Your task to perform on an android device: stop showing notifications on the lock screen Image 0: 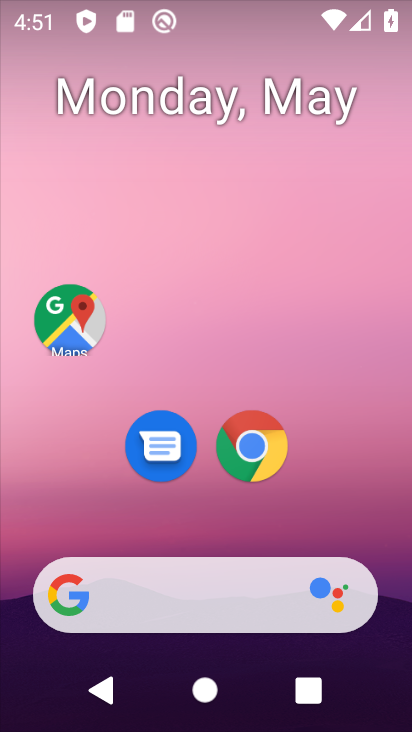
Step 0: drag from (343, 507) to (309, 152)
Your task to perform on an android device: stop showing notifications on the lock screen Image 1: 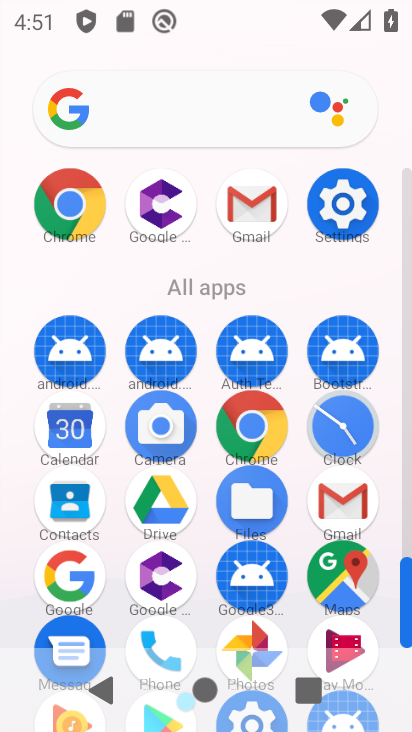
Step 1: click (343, 206)
Your task to perform on an android device: stop showing notifications on the lock screen Image 2: 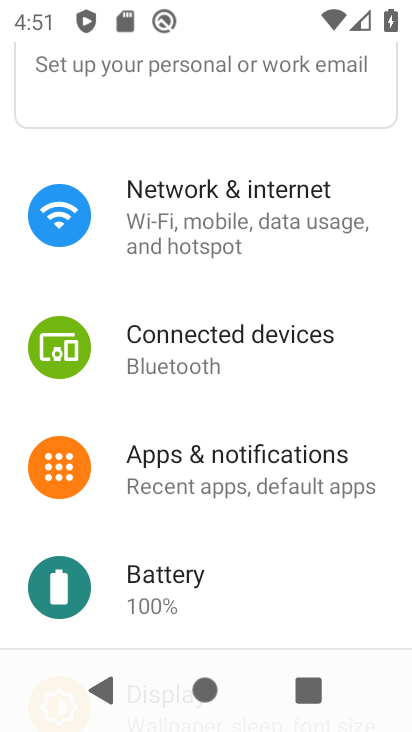
Step 2: click (224, 467)
Your task to perform on an android device: stop showing notifications on the lock screen Image 3: 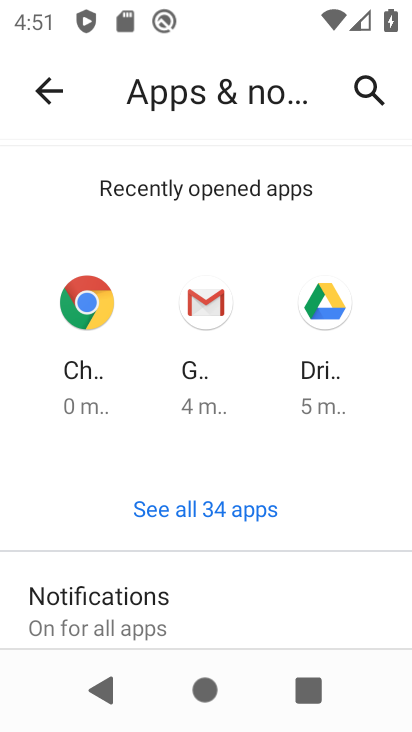
Step 3: click (104, 584)
Your task to perform on an android device: stop showing notifications on the lock screen Image 4: 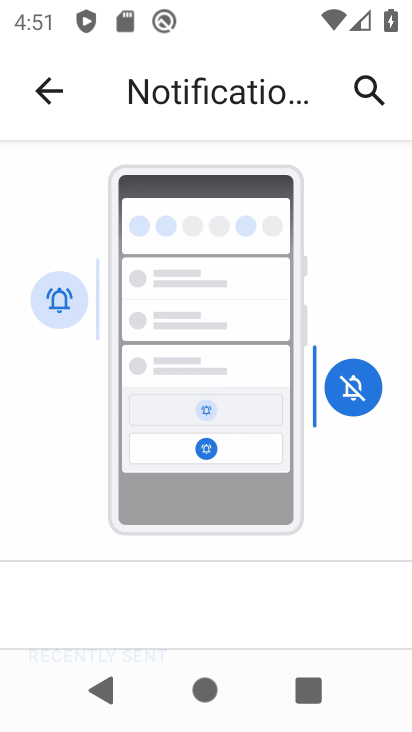
Step 4: drag from (331, 535) to (288, 151)
Your task to perform on an android device: stop showing notifications on the lock screen Image 5: 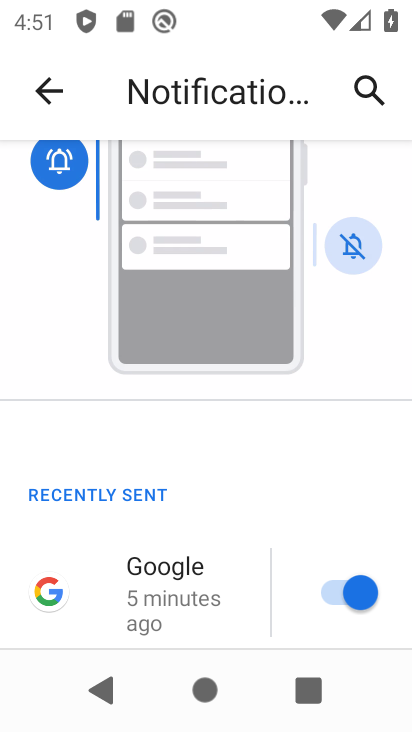
Step 5: drag from (259, 480) to (237, 138)
Your task to perform on an android device: stop showing notifications on the lock screen Image 6: 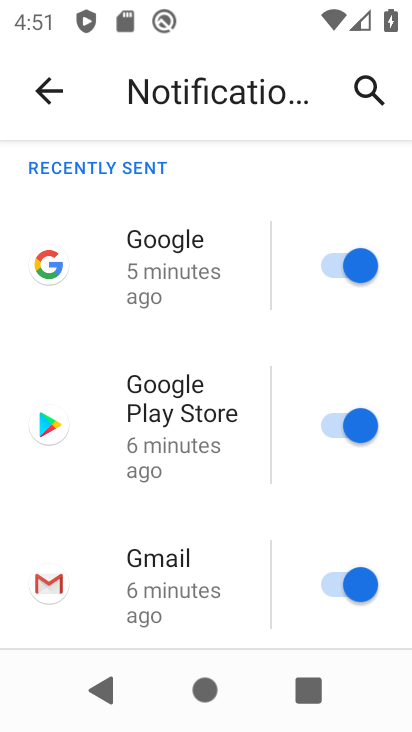
Step 6: drag from (227, 519) to (217, 130)
Your task to perform on an android device: stop showing notifications on the lock screen Image 7: 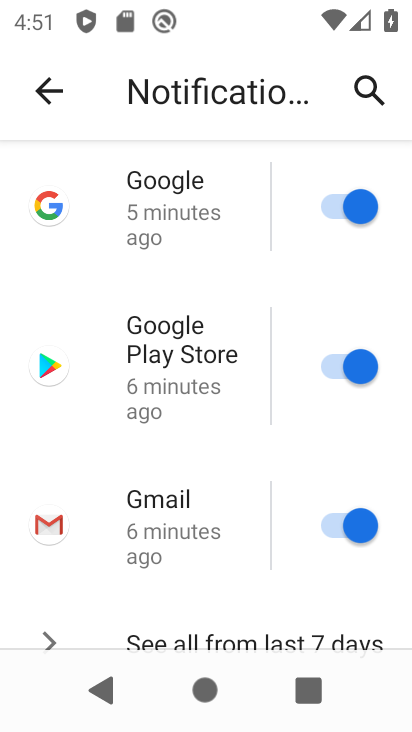
Step 7: drag from (247, 590) to (216, 248)
Your task to perform on an android device: stop showing notifications on the lock screen Image 8: 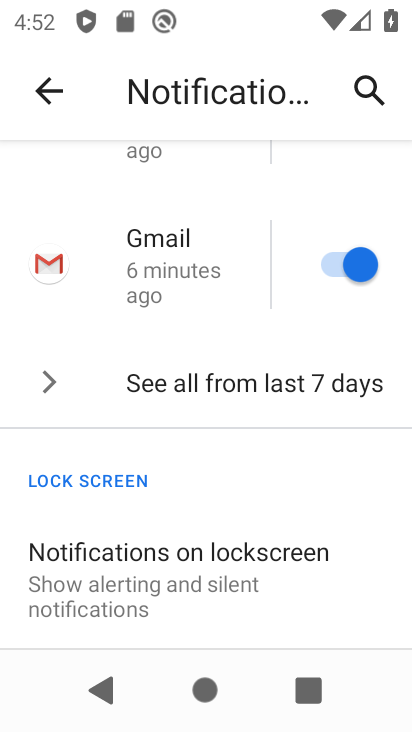
Step 8: click (157, 548)
Your task to perform on an android device: stop showing notifications on the lock screen Image 9: 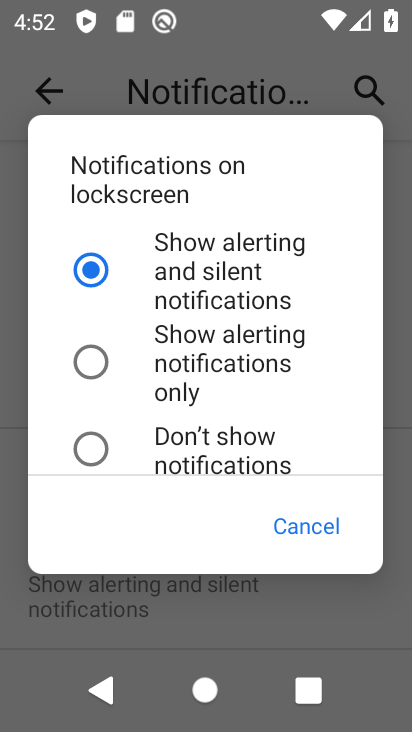
Step 9: click (88, 440)
Your task to perform on an android device: stop showing notifications on the lock screen Image 10: 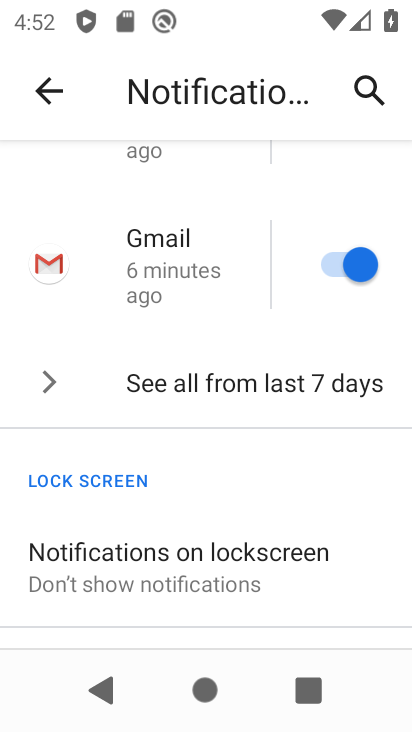
Step 10: task complete